Your task to perform on an android device: Open settings Image 0: 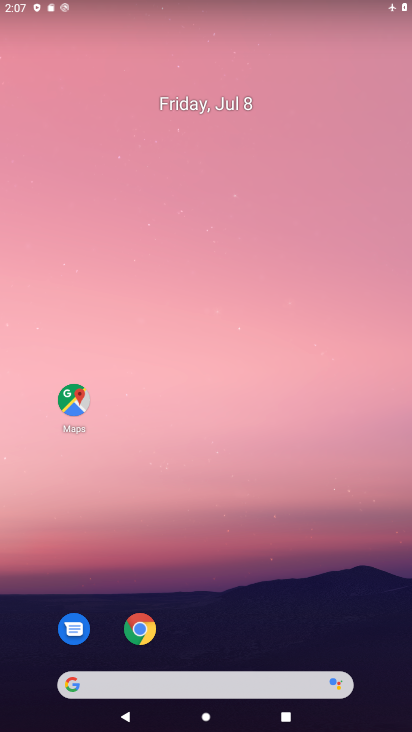
Step 0: drag from (62, 637) to (245, 1)
Your task to perform on an android device: Open settings Image 1: 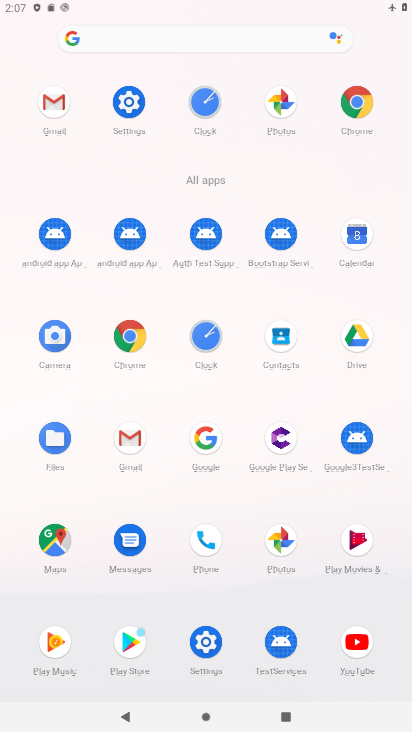
Step 1: click (221, 643)
Your task to perform on an android device: Open settings Image 2: 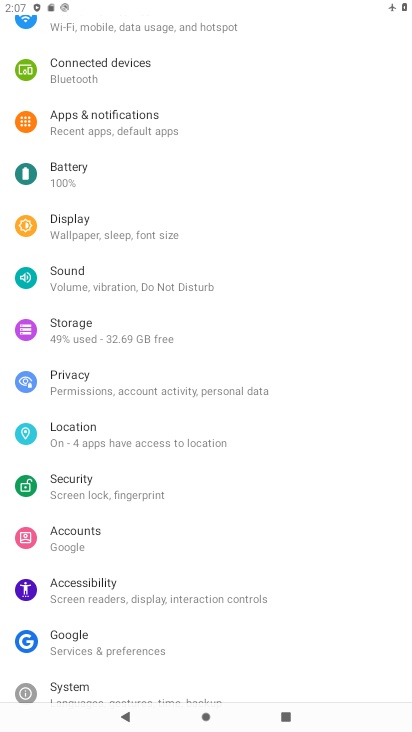
Step 2: task complete